Your task to perform on an android device: Do I have any events today? Image 0: 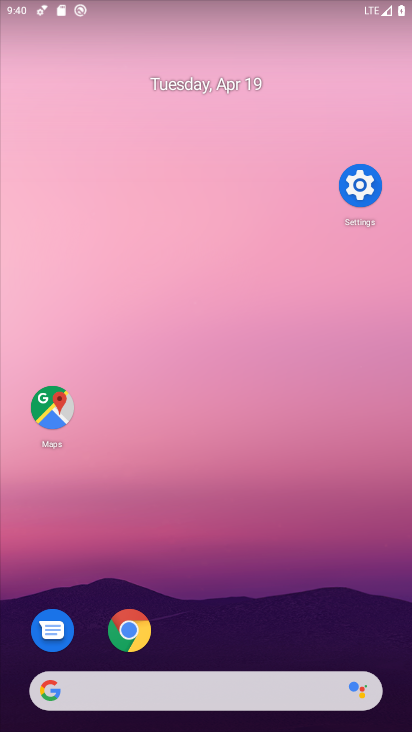
Step 0: drag from (258, 624) to (326, 80)
Your task to perform on an android device: Do I have any events today? Image 1: 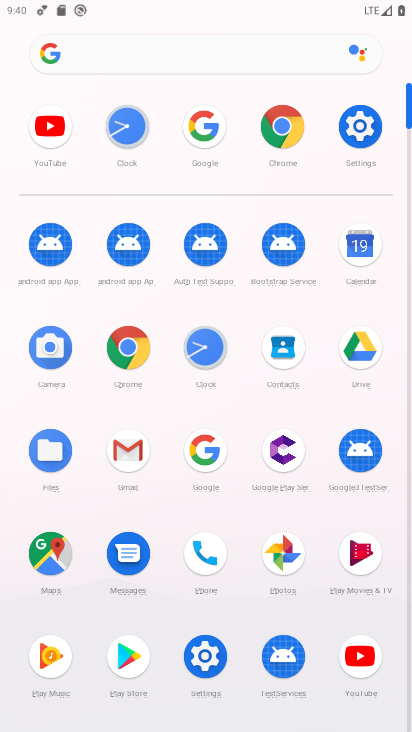
Step 1: click (366, 252)
Your task to perform on an android device: Do I have any events today? Image 2: 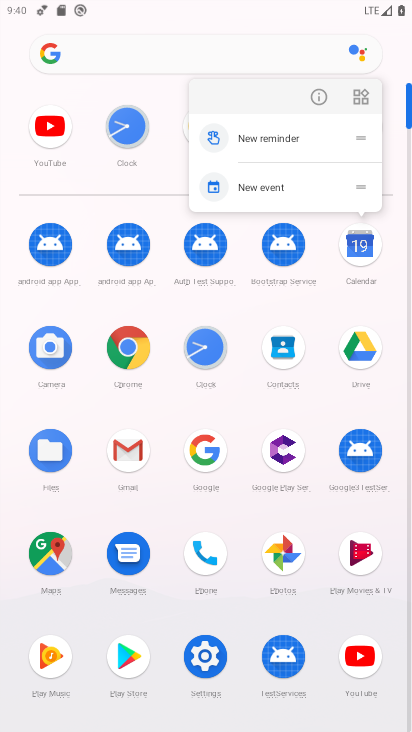
Step 2: click (365, 255)
Your task to perform on an android device: Do I have any events today? Image 3: 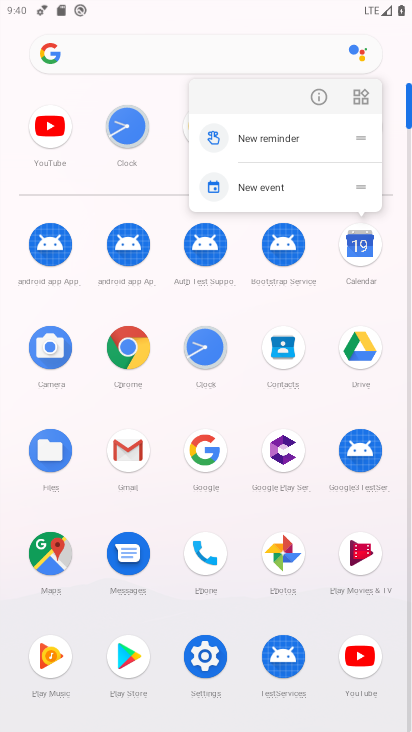
Step 3: click (370, 251)
Your task to perform on an android device: Do I have any events today? Image 4: 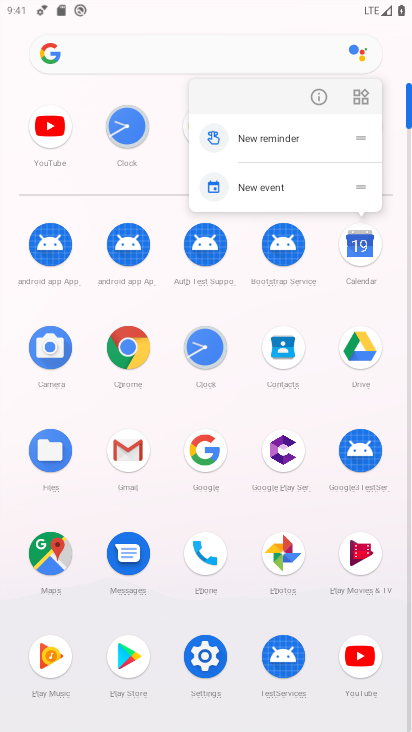
Step 4: click (368, 266)
Your task to perform on an android device: Do I have any events today? Image 5: 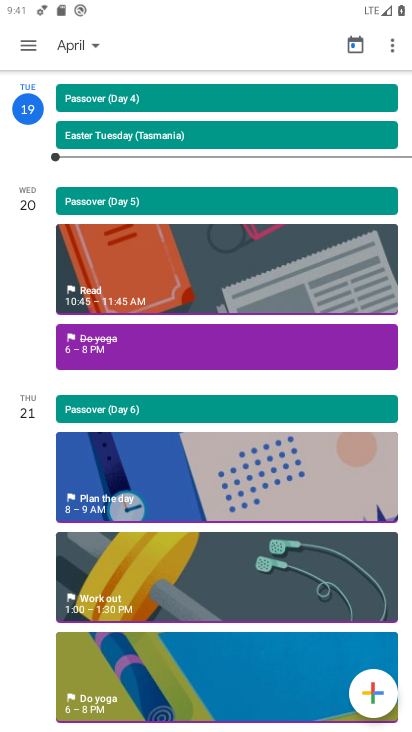
Step 5: task complete